Your task to perform on an android device: open app "PUBG MOBILE" Image 0: 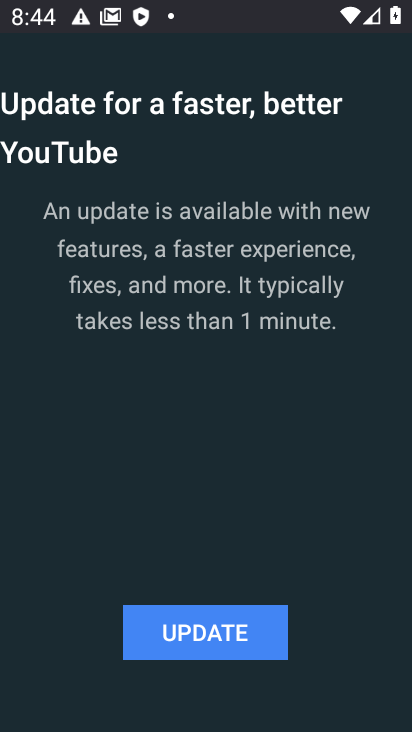
Step 0: press home button
Your task to perform on an android device: open app "PUBG MOBILE" Image 1: 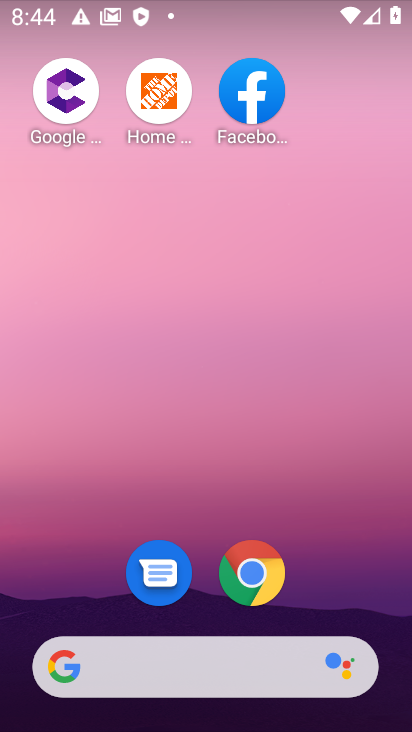
Step 1: drag from (256, 648) to (264, 58)
Your task to perform on an android device: open app "PUBG MOBILE" Image 2: 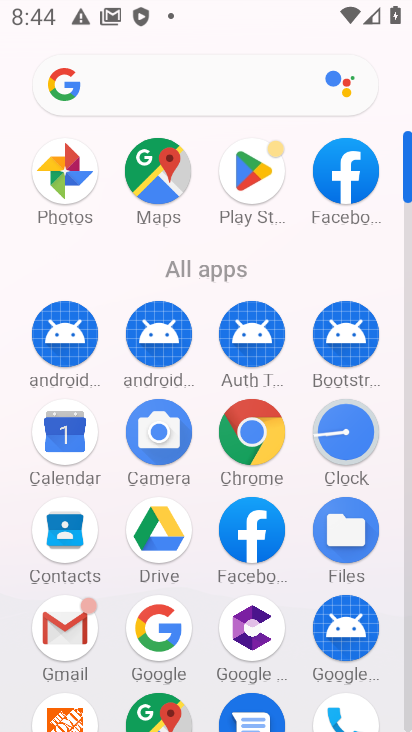
Step 2: click (256, 170)
Your task to perform on an android device: open app "PUBG MOBILE" Image 3: 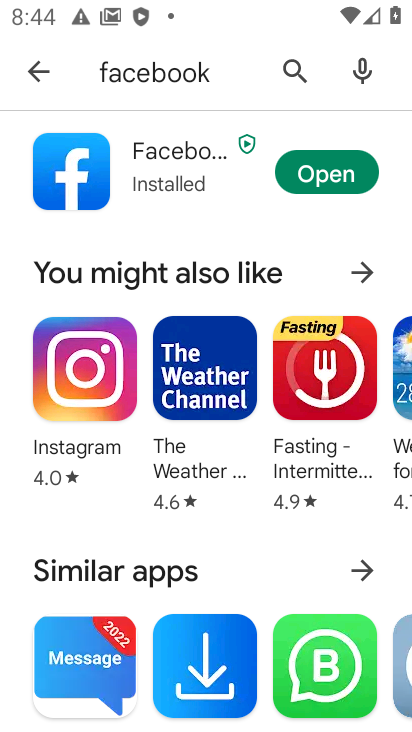
Step 3: click (295, 68)
Your task to perform on an android device: open app "PUBG MOBILE" Image 4: 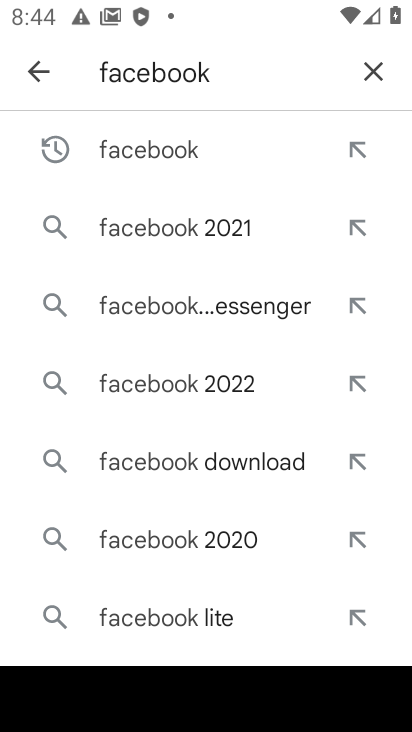
Step 4: click (364, 72)
Your task to perform on an android device: open app "PUBG MOBILE" Image 5: 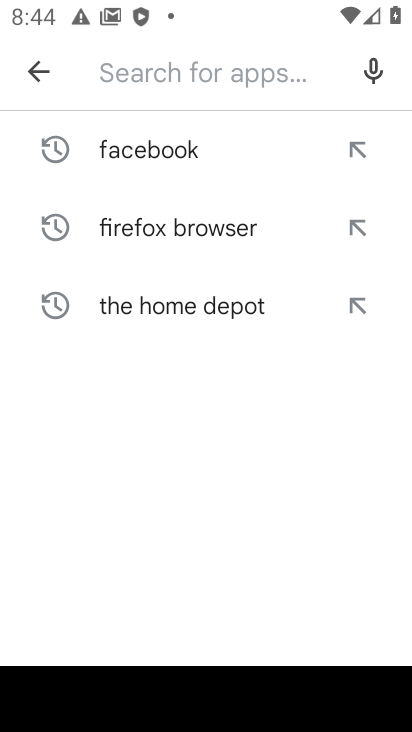
Step 5: type "pubg mobile"
Your task to perform on an android device: open app "PUBG MOBILE" Image 6: 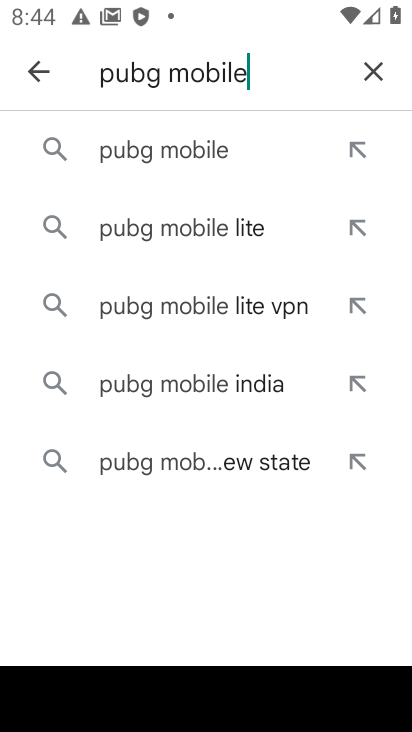
Step 6: click (243, 162)
Your task to perform on an android device: open app "PUBG MOBILE" Image 7: 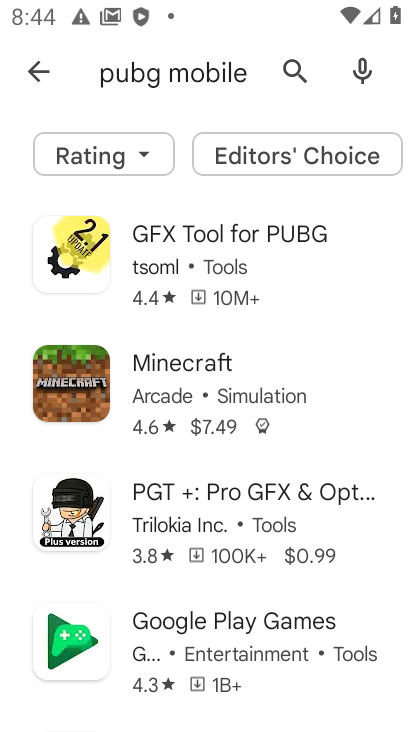
Step 7: task complete